Your task to perform on an android device: Open the Play Movies app and select the watchlist tab. Image 0: 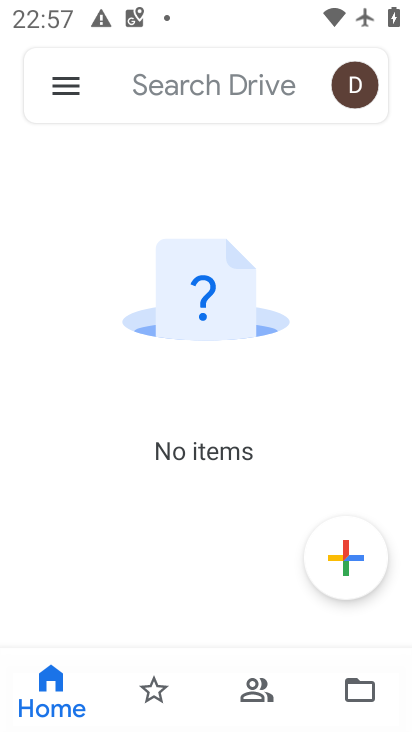
Step 0: press home button
Your task to perform on an android device: Open the Play Movies app and select the watchlist tab. Image 1: 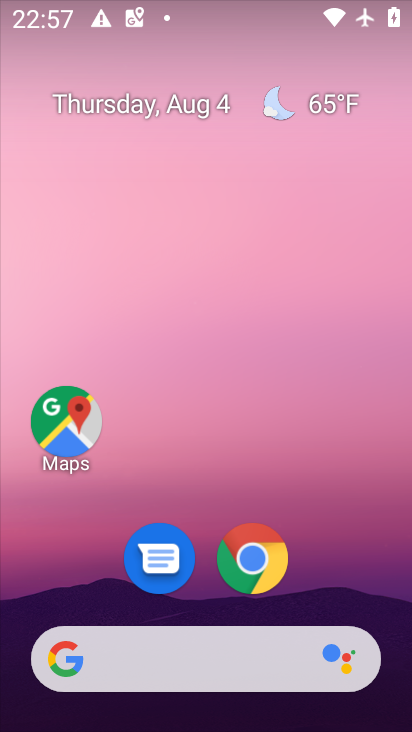
Step 1: drag from (367, 571) to (328, 102)
Your task to perform on an android device: Open the Play Movies app and select the watchlist tab. Image 2: 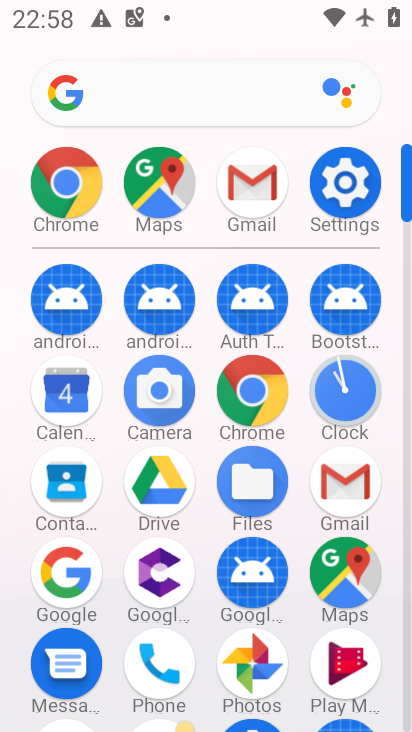
Step 2: click (347, 654)
Your task to perform on an android device: Open the Play Movies app and select the watchlist tab. Image 3: 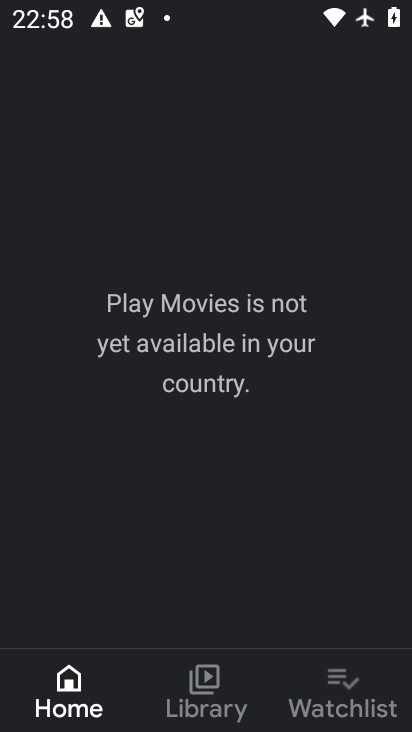
Step 3: click (318, 696)
Your task to perform on an android device: Open the Play Movies app and select the watchlist tab. Image 4: 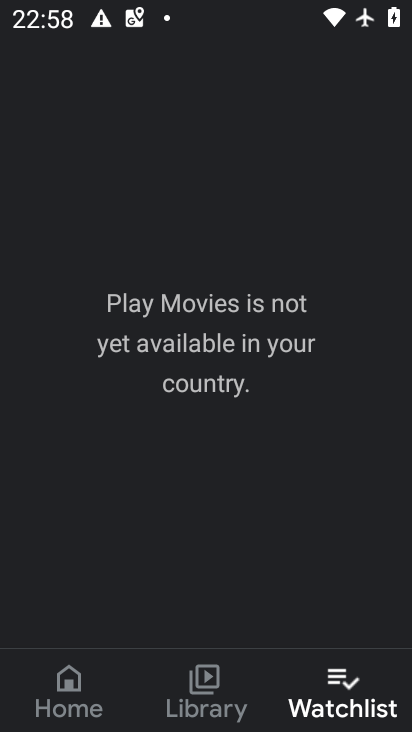
Step 4: task complete